Your task to perform on an android device: Go to eBay Image 0: 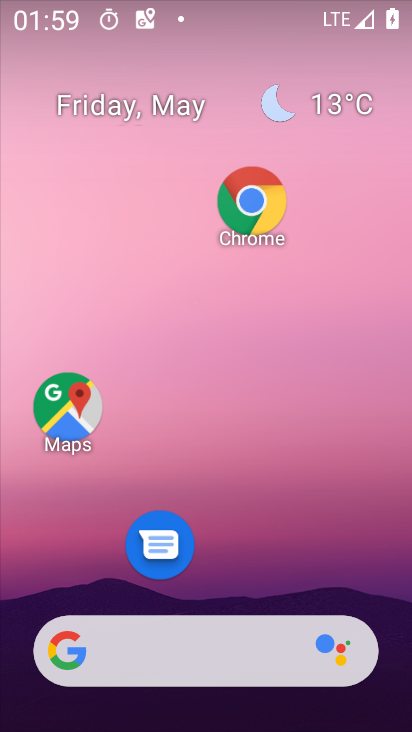
Step 0: click (238, 201)
Your task to perform on an android device: Go to eBay Image 1: 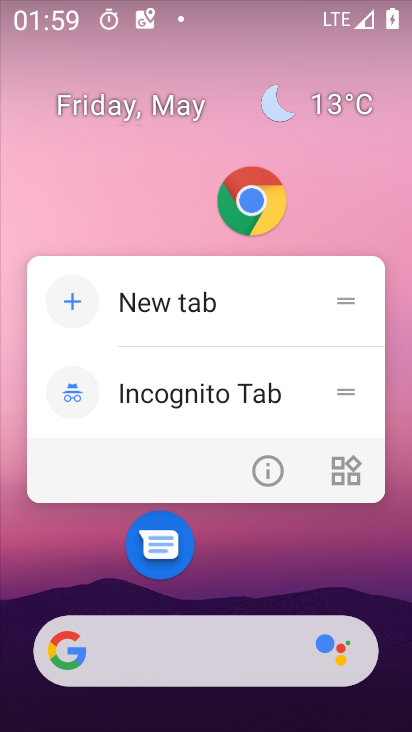
Step 1: click (248, 205)
Your task to perform on an android device: Go to eBay Image 2: 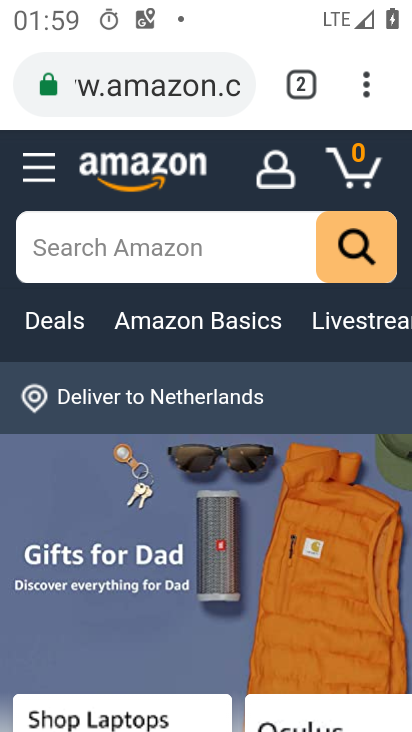
Step 2: click (181, 93)
Your task to perform on an android device: Go to eBay Image 3: 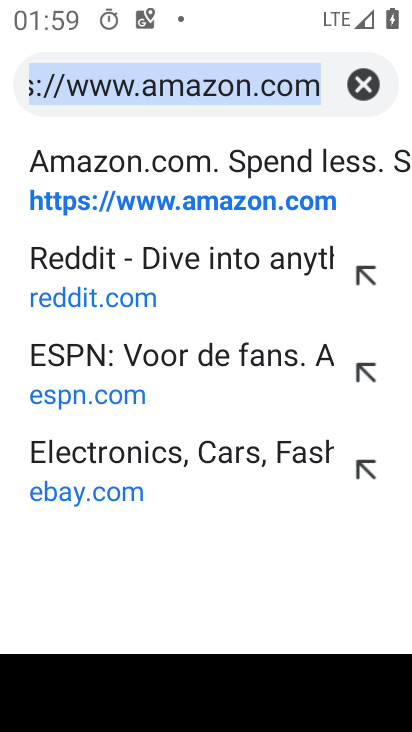
Step 3: type "www.ebay.com"
Your task to perform on an android device: Go to eBay Image 4: 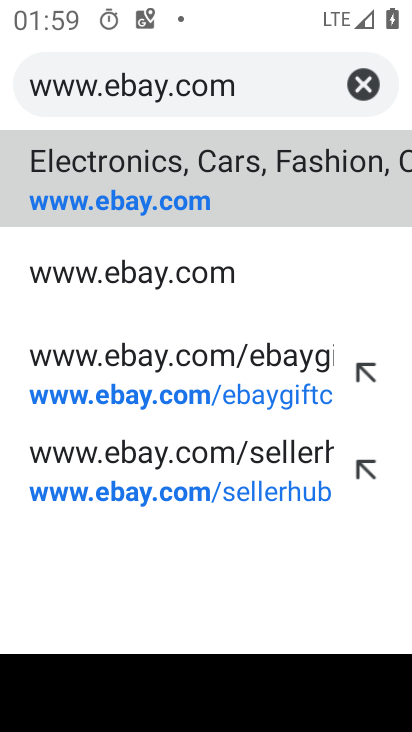
Step 4: click (139, 198)
Your task to perform on an android device: Go to eBay Image 5: 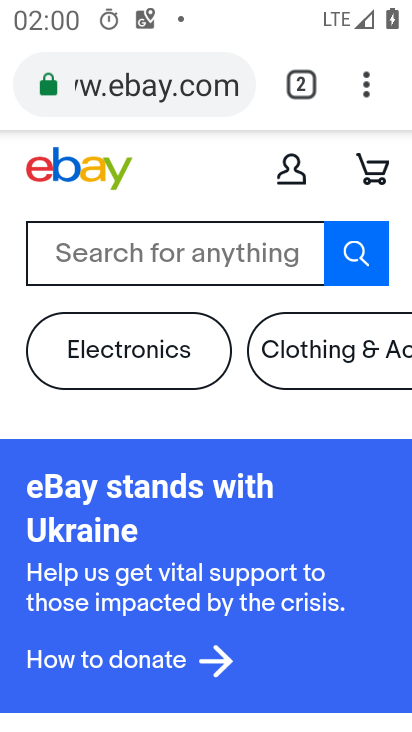
Step 5: task complete